Your task to perform on an android device: turn on the 24-hour format for clock Image 0: 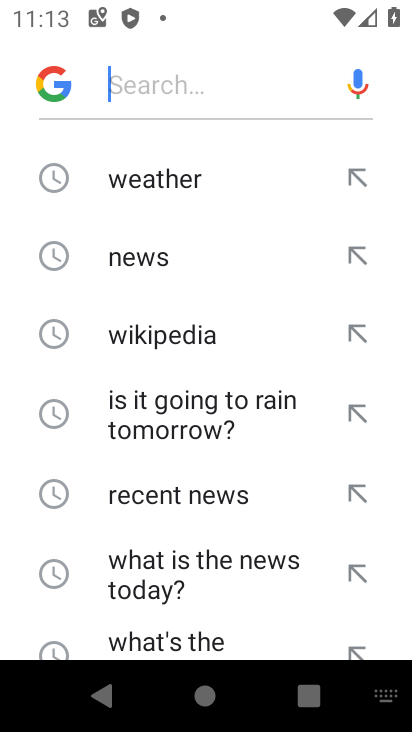
Step 0: press home button
Your task to perform on an android device: turn on the 24-hour format for clock Image 1: 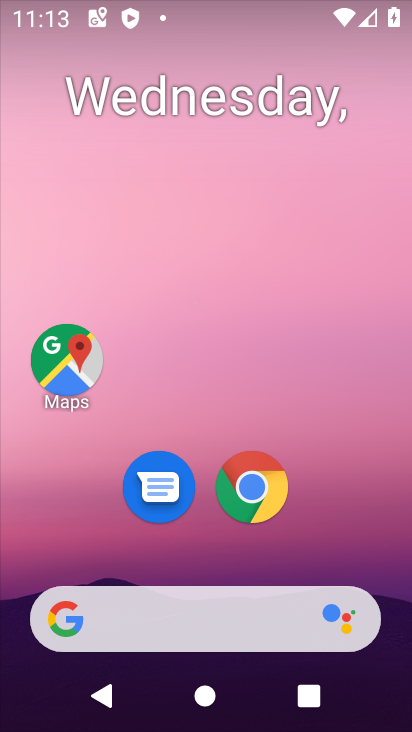
Step 1: drag from (353, 566) to (376, 6)
Your task to perform on an android device: turn on the 24-hour format for clock Image 2: 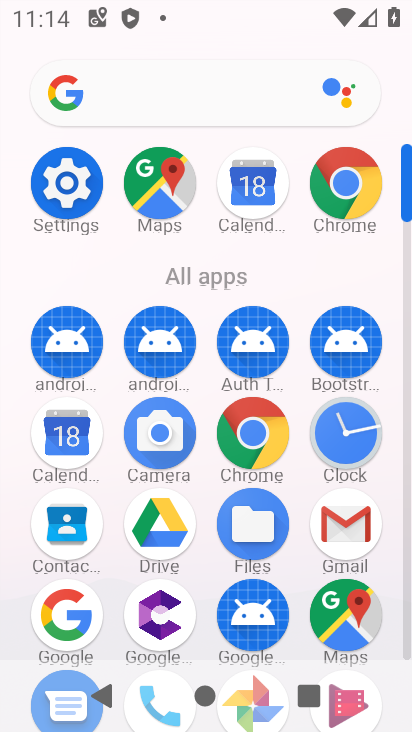
Step 2: click (344, 435)
Your task to perform on an android device: turn on the 24-hour format for clock Image 3: 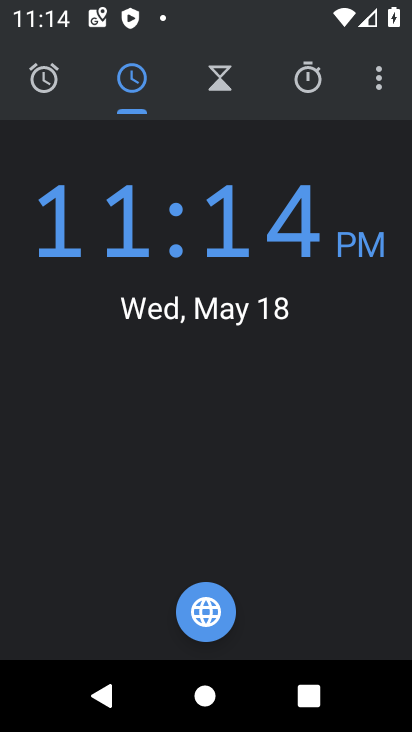
Step 3: click (378, 81)
Your task to perform on an android device: turn on the 24-hour format for clock Image 4: 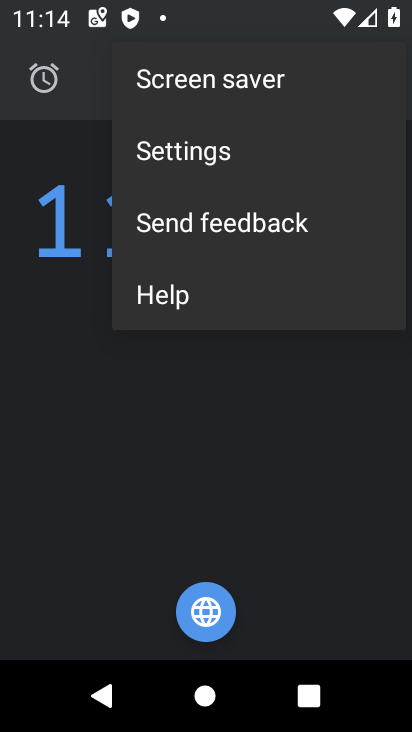
Step 4: click (167, 152)
Your task to perform on an android device: turn on the 24-hour format for clock Image 5: 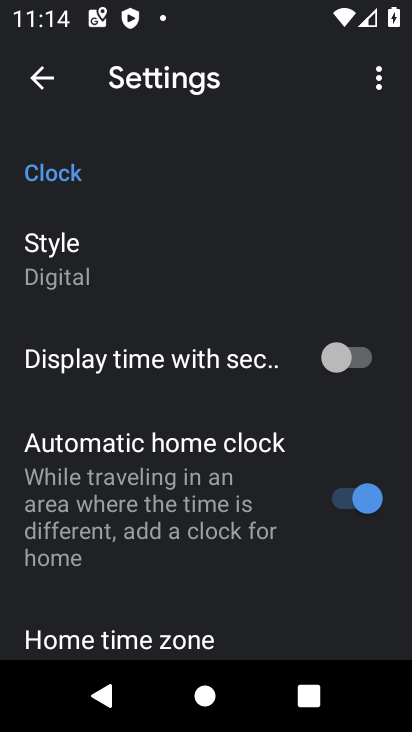
Step 5: drag from (143, 461) to (177, 116)
Your task to perform on an android device: turn on the 24-hour format for clock Image 6: 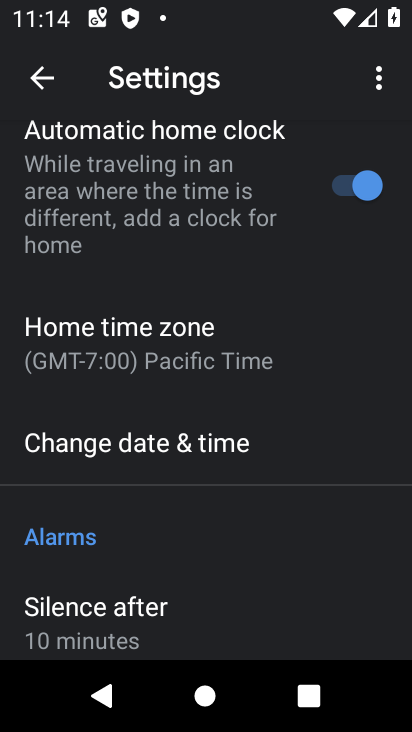
Step 6: click (141, 445)
Your task to perform on an android device: turn on the 24-hour format for clock Image 7: 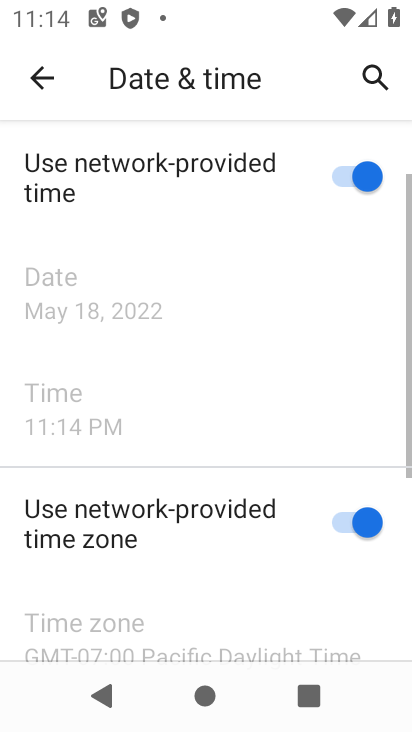
Step 7: drag from (200, 522) to (214, 125)
Your task to perform on an android device: turn on the 24-hour format for clock Image 8: 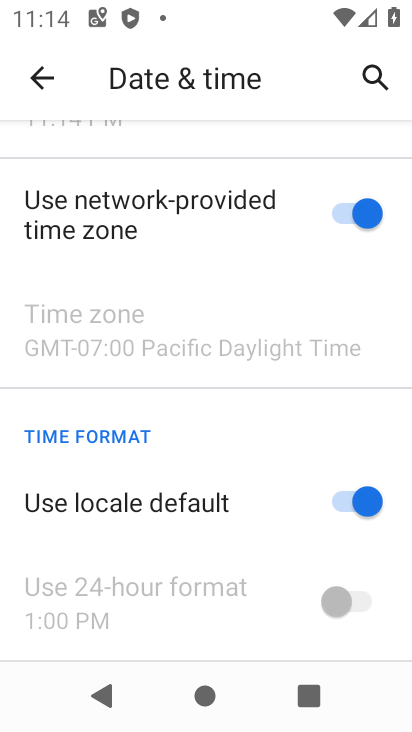
Step 8: click (350, 504)
Your task to perform on an android device: turn on the 24-hour format for clock Image 9: 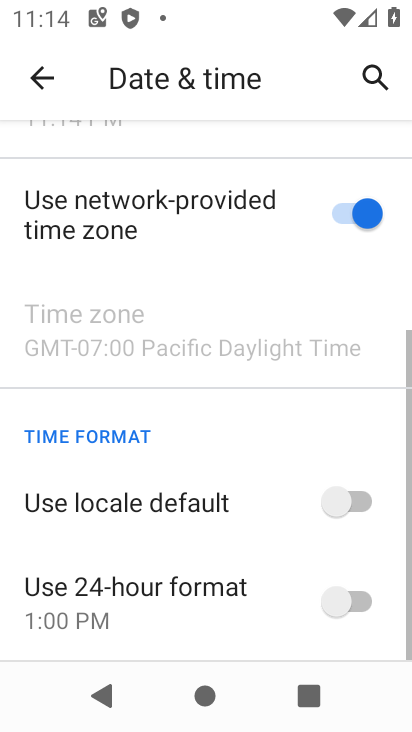
Step 9: click (342, 598)
Your task to perform on an android device: turn on the 24-hour format for clock Image 10: 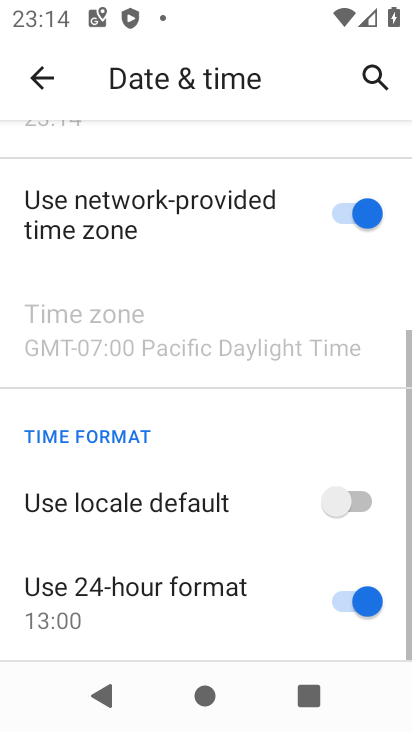
Step 10: task complete